Your task to perform on an android device: snooze an email in the gmail app Image 0: 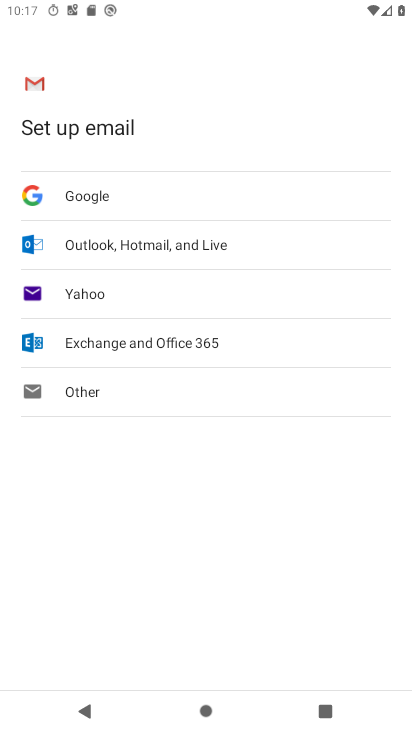
Step 0: press home button
Your task to perform on an android device: snooze an email in the gmail app Image 1: 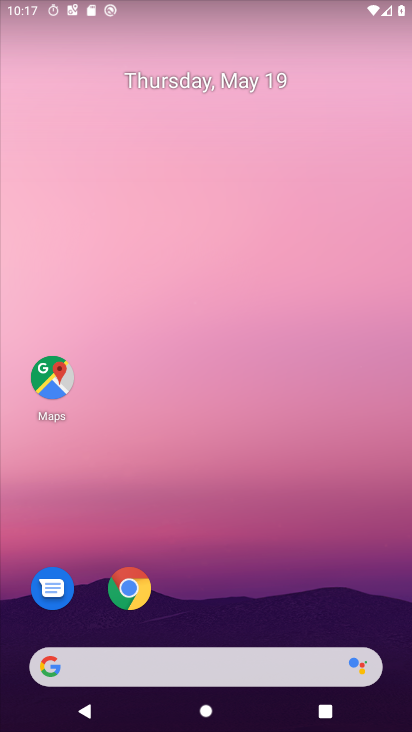
Step 1: drag from (198, 647) to (329, 81)
Your task to perform on an android device: snooze an email in the gmail app Image 2: 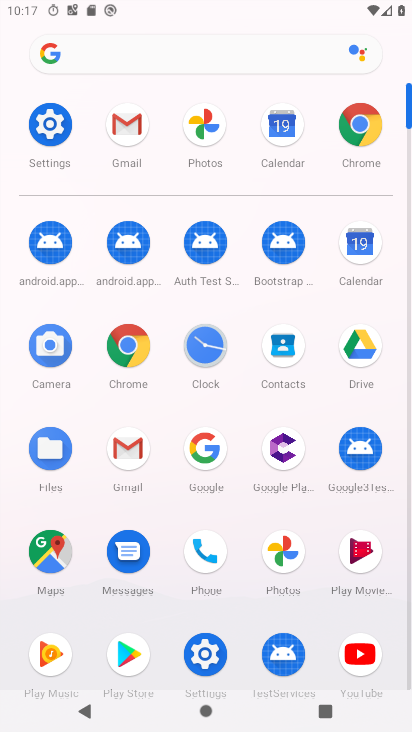
Step 2: click (124, 131)
Your task to perform on an android device: snooze an email in the gmail app Image 3: 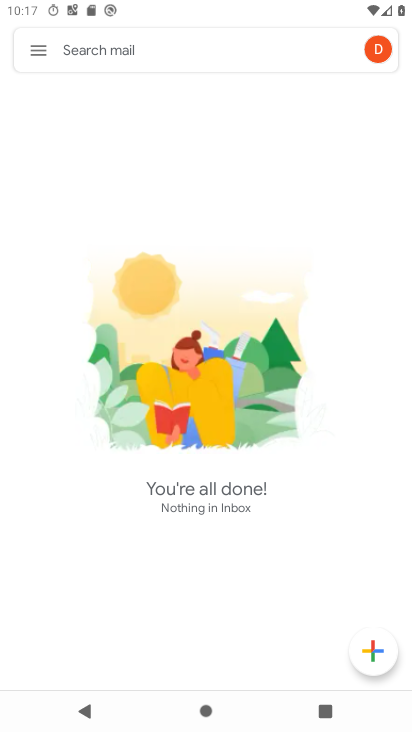
Step 3: task complete